Your task to perform on an android device: turn off airplane mode Image 0: 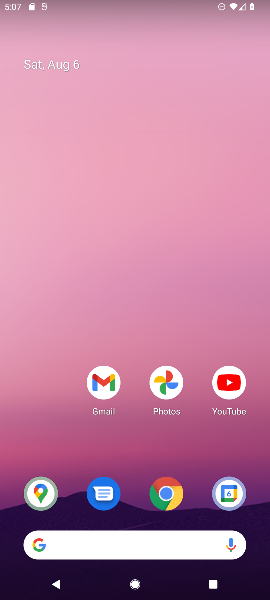
Step 0: click (57, 205)
Your task to perform on an android device: turn off airplane mode Image 1: 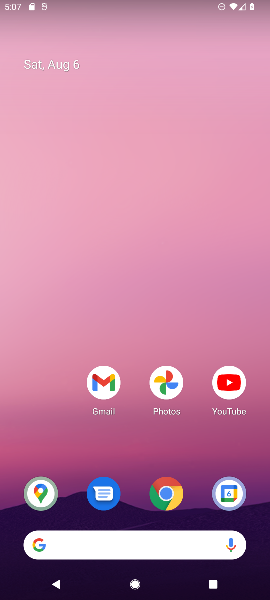
Step 1: click (186, 242)
Your task to perform on an android device: turn off airplane mode Image 2: 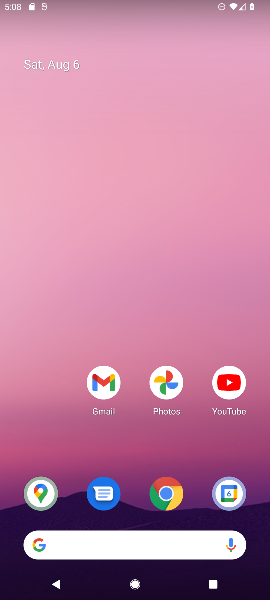
Step 2: click (101, 135)
Your task to perform on an android device: turn off airplane mode Image 3: 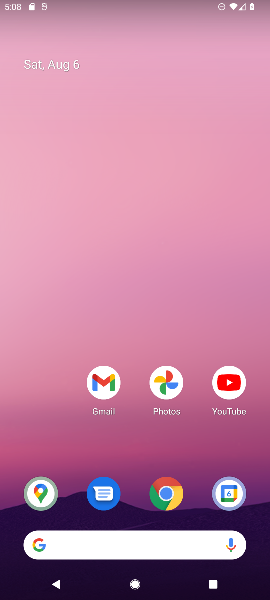
Step 3: drag from (83, 435) to (113, 78)
Your task to perform on an android device: turn off airplane mode Image 4: 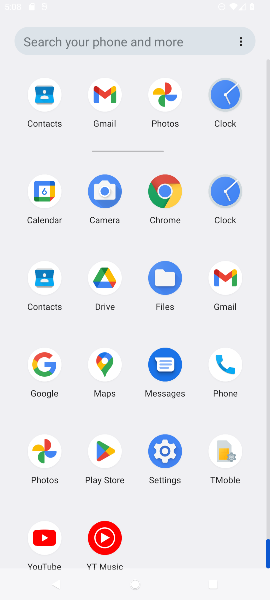
Step 4: drag from (116, 300) to (116, 119)
Your task to perform on an android device: turn off airplane mode Image 5: 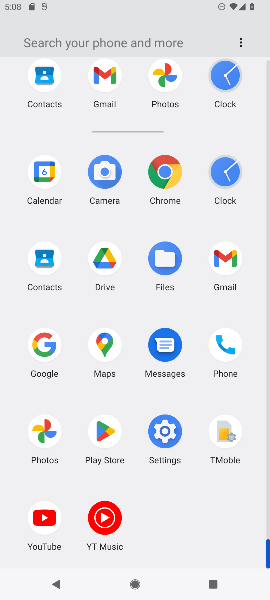
Step 5: click (164, 428)
Your task to perform on an android device: turn off airplane mode Image 6: 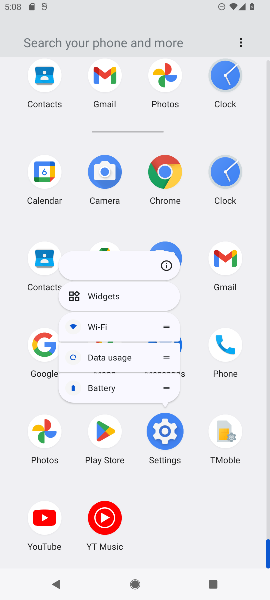
Step 6: click (164, 428)
Your task to perform on an android device: turn off airplane mode Image 7: 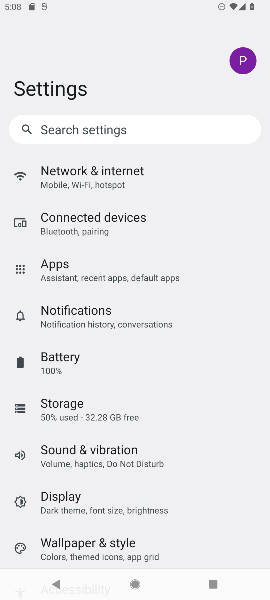
Step 7: click (71, 188)
Your task to perform on an android device: turn off airplane mode Image 8: 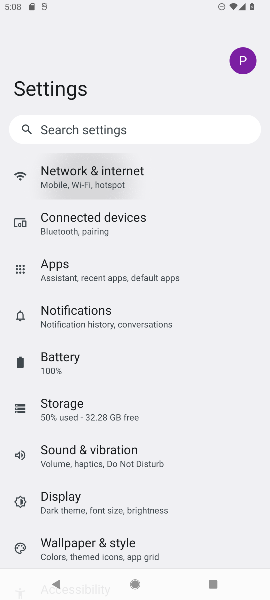
Step 8: click (71, 188)
Your task to perform on an android device: turn off airplane mode Image 9: 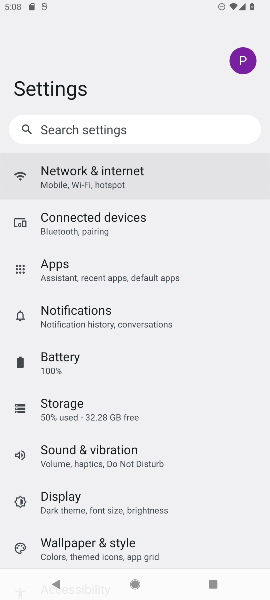
Step 9: click (71, 188)
Your task to perform on an android device: turn off airplane mode Image 10: 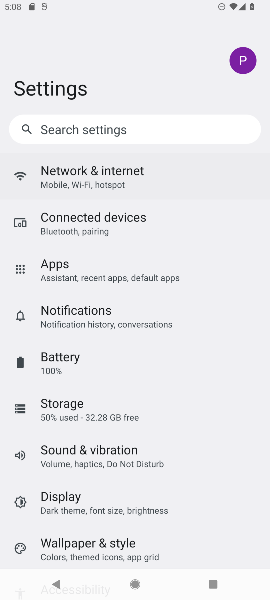
Step 10: click (70, 187)
Your task to perform on an android device: turn off airplane mode Image 11: 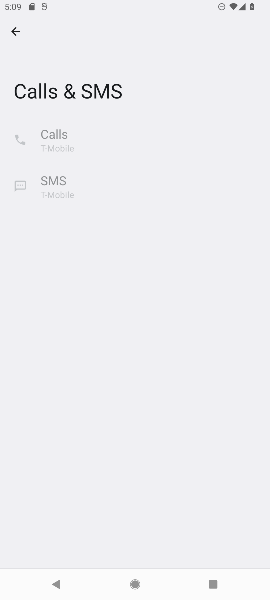
Step 11: click (15, 28)
Your task to perform on an android device: turn off airplane mode Image 12: 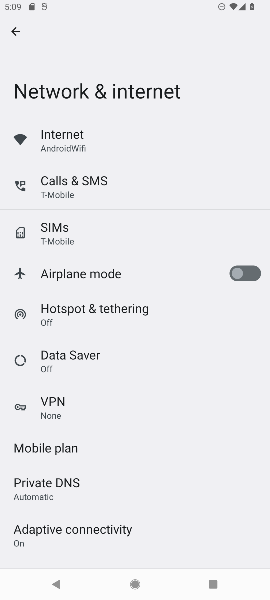
Step 12: task complete